Your task to perform on an android device: Go to eBay Image 0: 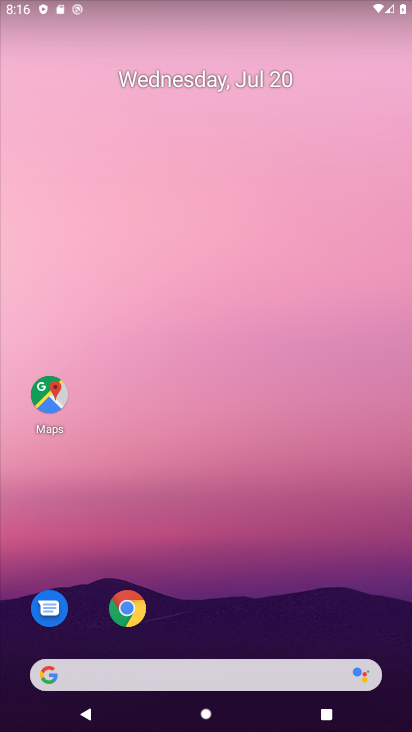
Step 0: drag from (265, 588) to (237, 0)
Your task to perform on an android device: Go to eBay Image 1: 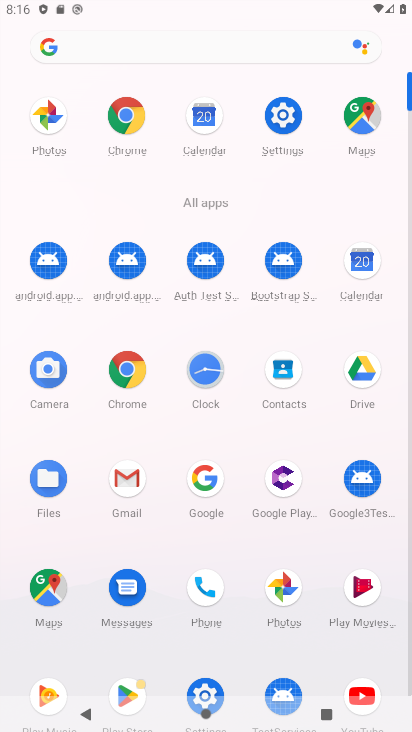
Step 1: click (127, 383)
Your task to perform on an android device: Go to eBay Image 2: 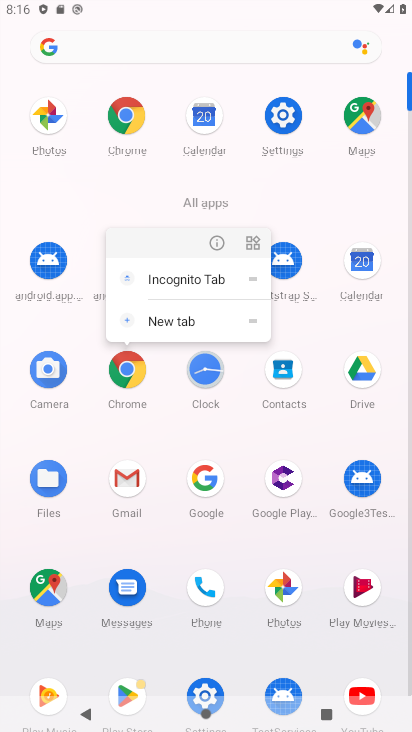
Step 2: click (150, 126)
Your task to perform on an android device: Go to eBay Image 3: 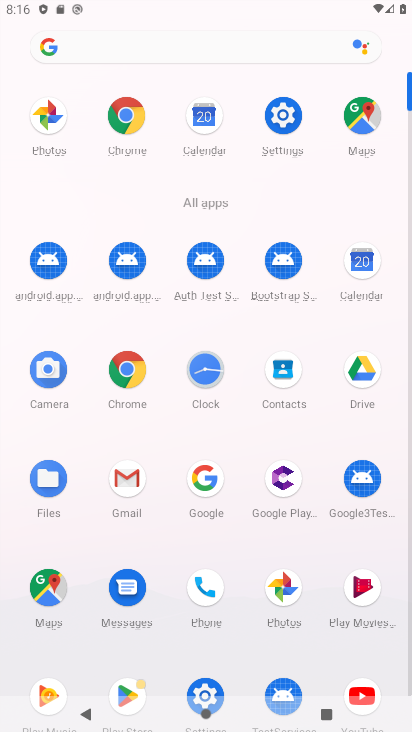
Step 3: click (131, 129)
Your task to perform on an android device: Go to eBay Image 4: 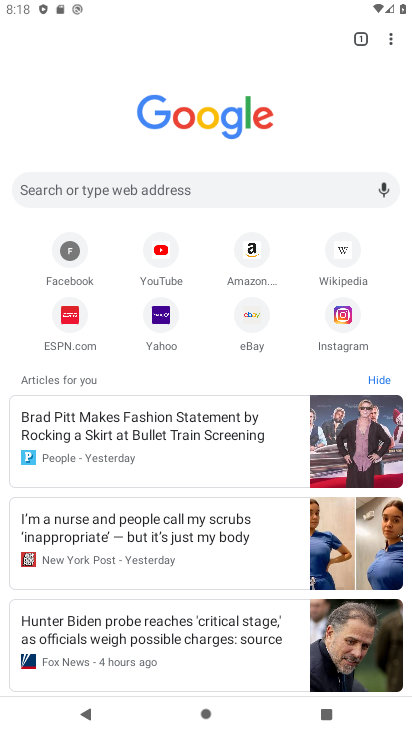
Step 4: click (265, 321)
Your task to perform on an android device: Go to eBay Image 5: 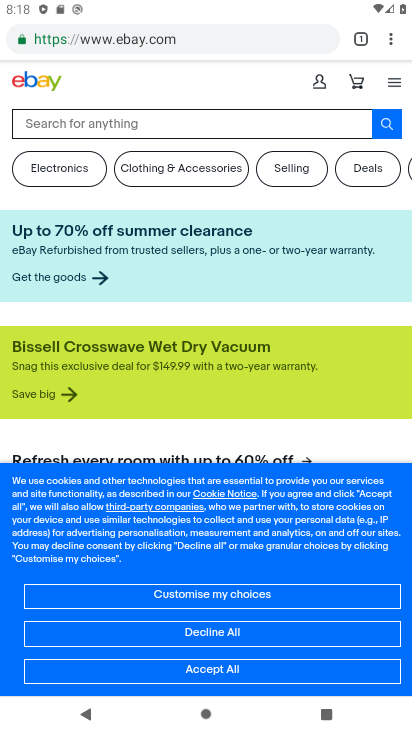
Step 5: task complete